Your task to perform on an android device: Open Yahoo.com Image 0: 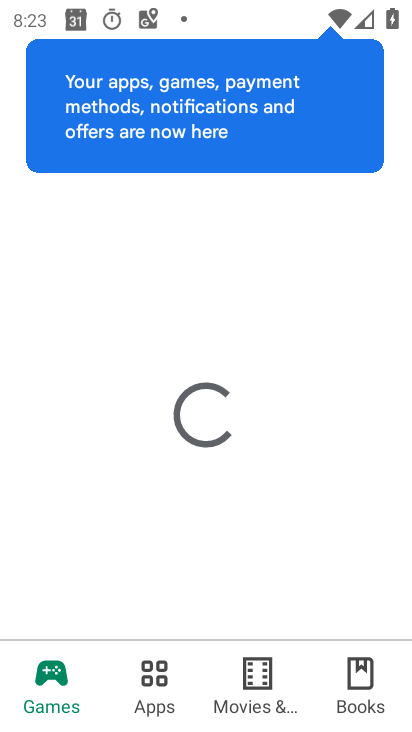
Step 0: press home button
Your task to perform on an android device: Open Yahoo.com Image 1: 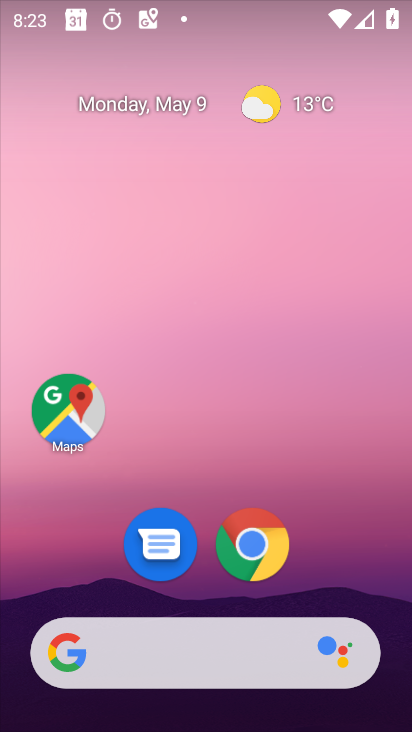
Step 1: drag from (366, 579) to (405, 21)
Your task to perform on an android device: Open Yahoo.com Image 2: 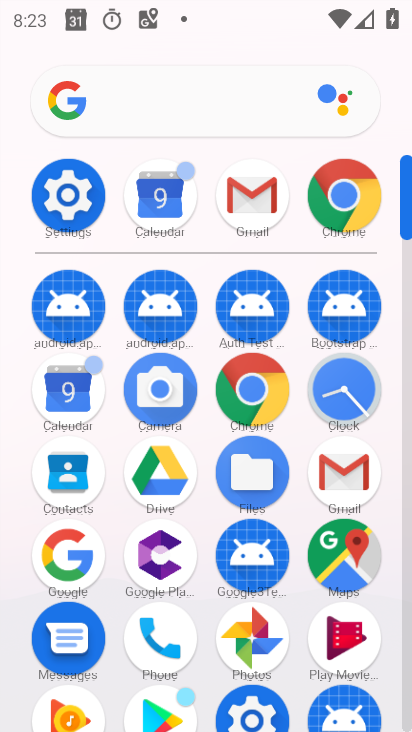
Step 2: click (354, 193)
Your task to perform on an android device: Open Yahoo.com Image 3: 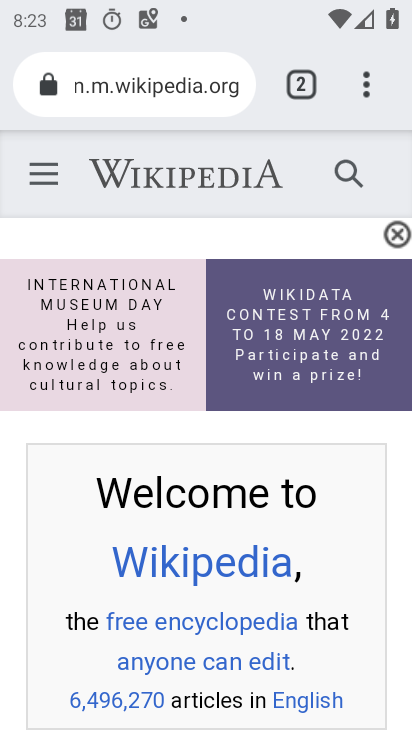
Step 3: click (179, 117)
Your task to perform on an android device: Open Yahoo.com Image 4: 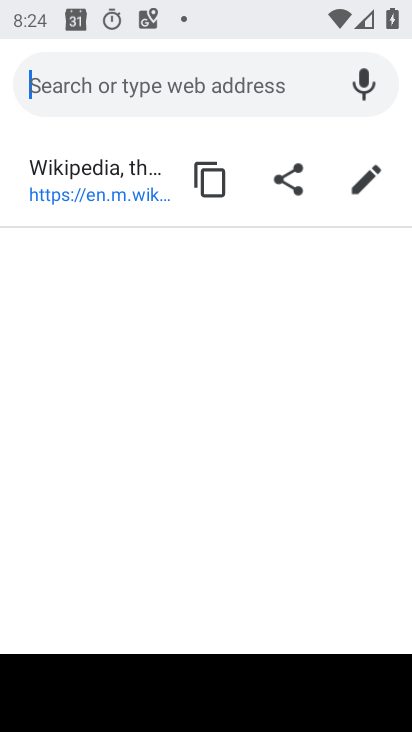
Step 4: type "yahoo.com"
Your task to perform on an android device: Open Yahoo.com Image 5: 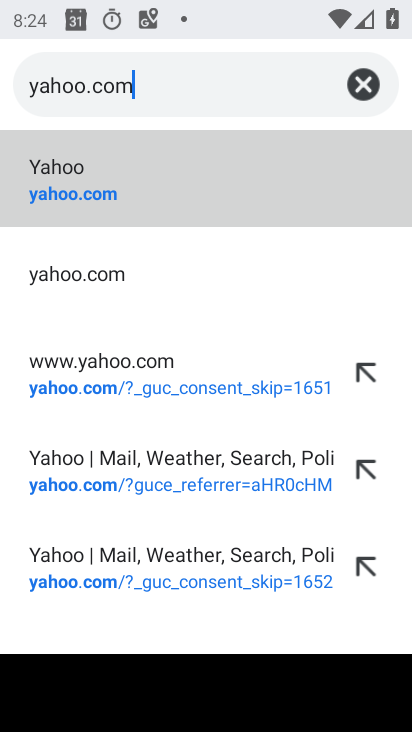
Step 5: click (134, 190)
Your task to perform on an android device: Open Yahoo.com Image 6: 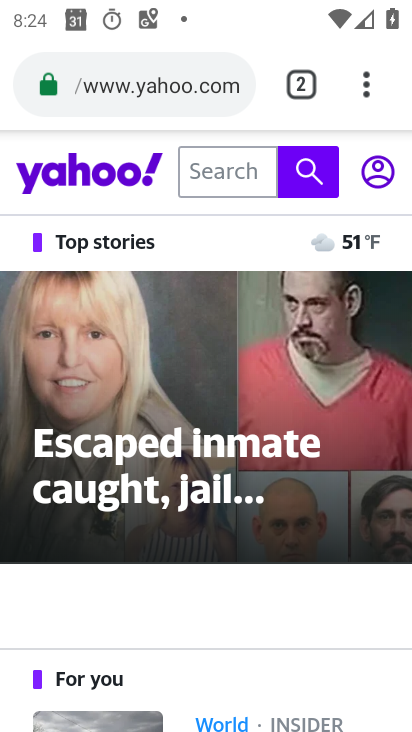
Step 6: task complete